Your task to perform on an android device: turn off improve location accuracy Image 0: 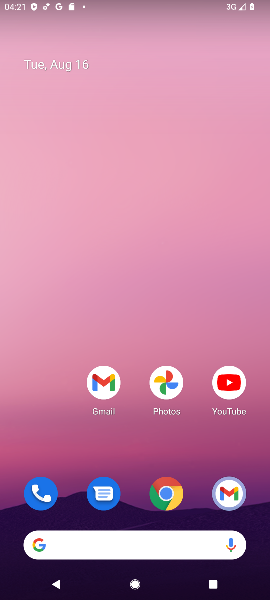
Step 0: press home button
Your task to perform on an android device: turn off improve location accuracy Image 1: 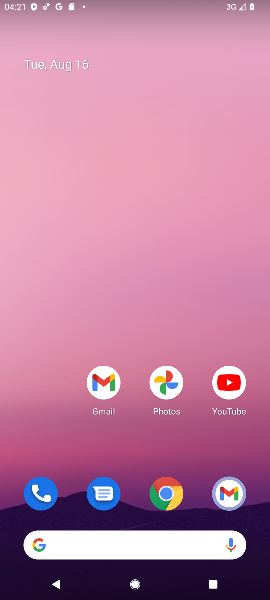
Step 1: drag from (69, 509) to (63, 134)
Your task to perform on an android device: turn off improve location accuracy Image 2: 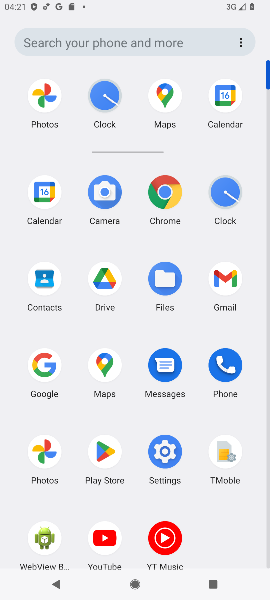
Step 2: click (161, 451)
Your task to perform on an android device: turn off improve location accuracy Image 3: 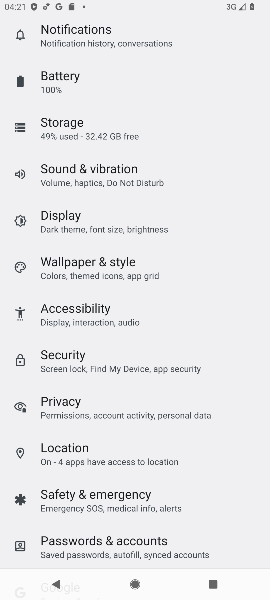
Step 3: drag from (226, 496) to (240, 329)
Your task to perform on an android device: turn off improve location accuracy Image 4: 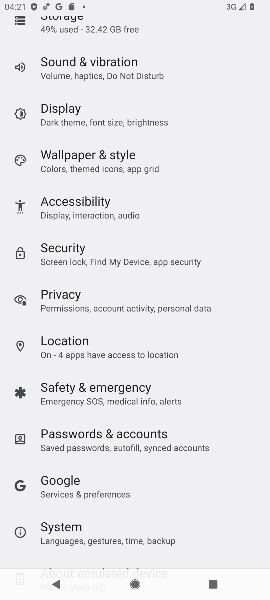
Step 4: click (186, 352)
Your task to perform on an android device: turn off improve location accuracy Image 5: 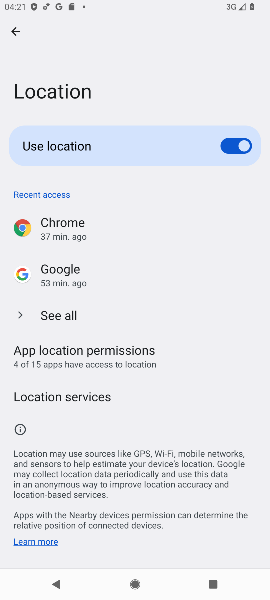
Step 5: click (106, 404)
Your task to perform on an android device: turn off improve location accuracy Image 6: 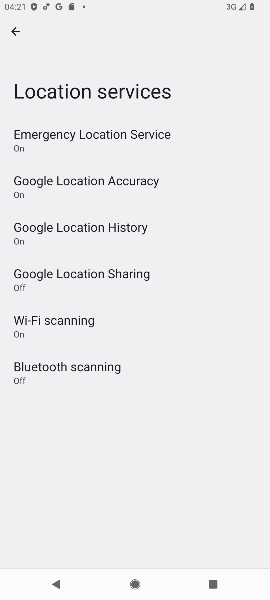
Step 6: click (137, 190)
Your task to perform on an android device: turn off improve location accuracy Image 7: 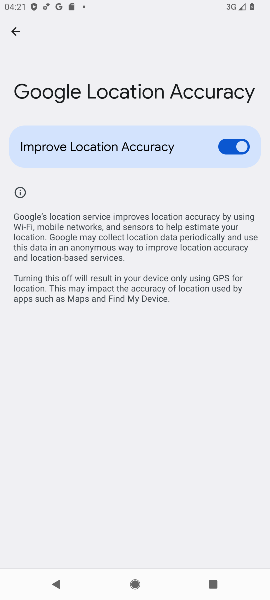
Step 7: click (230, 151)
Your task to perform on an android device: turn off improve location accuracy Image 8: 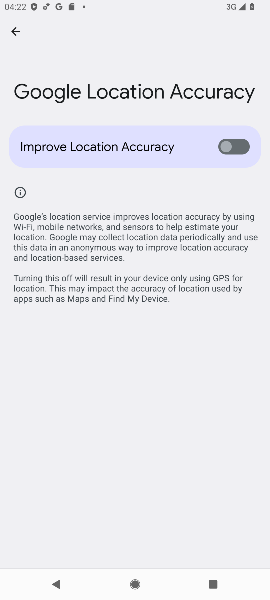
Step 8: task complete